Your task to perform on an android device: Open Yahoo.com Image 0: 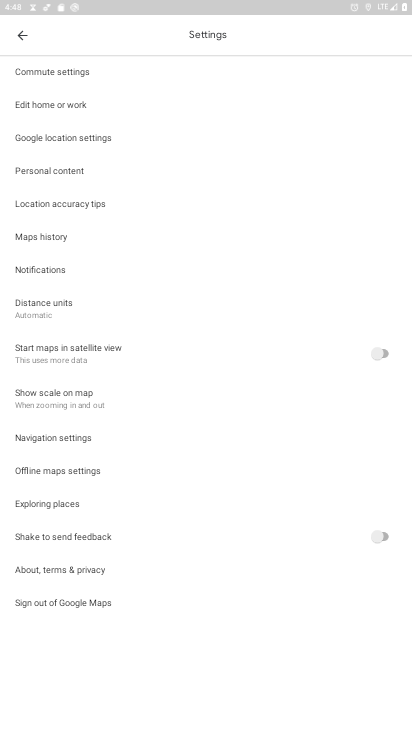
Step 0: press home button
Your task to perform on an android device: Open Yahoo.com Image 1: 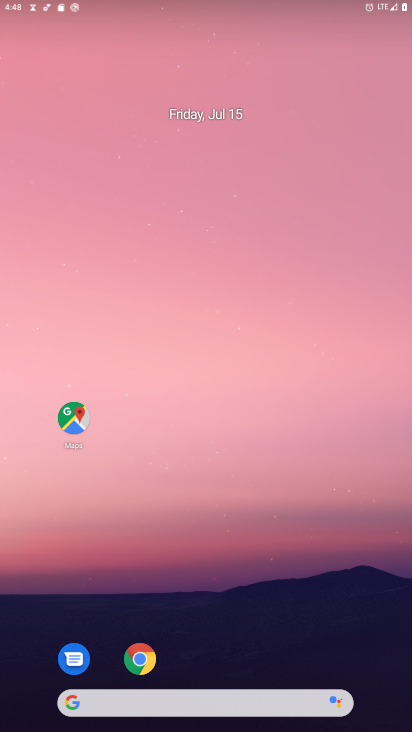
Step 1: drag from (276, 657) to (275, 222)
Your task to perform on an android device: Open Yahoo.com Image 2: 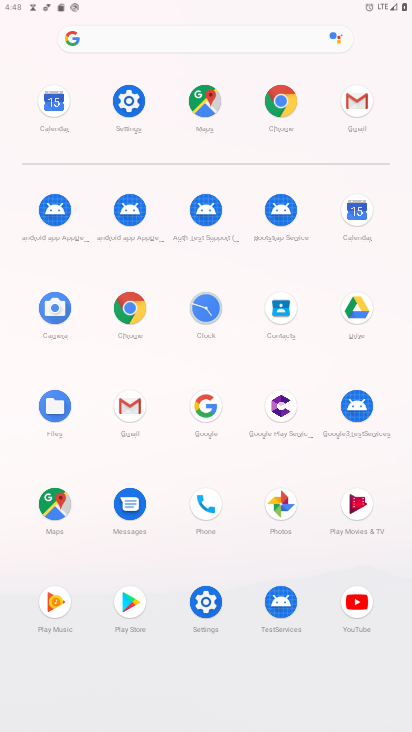
Step 2: click (139, 313)
Your task to perform on an android device: Open Yahoo.com Image 3: 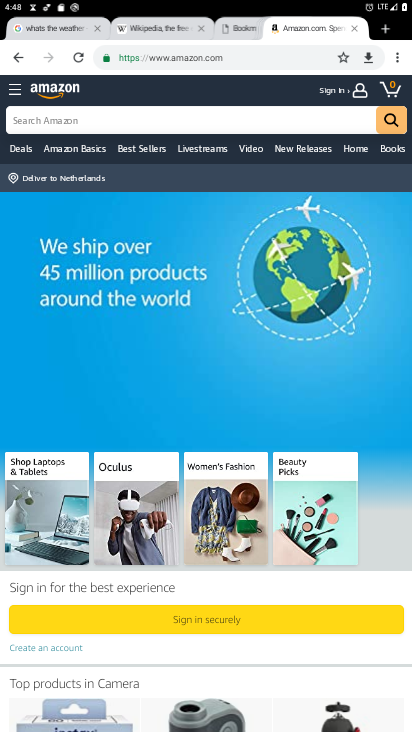
Step 3: drag from (396, 55) to (317, 89)
Your task to perform on an android device: Open Yahoo.com Image 4: 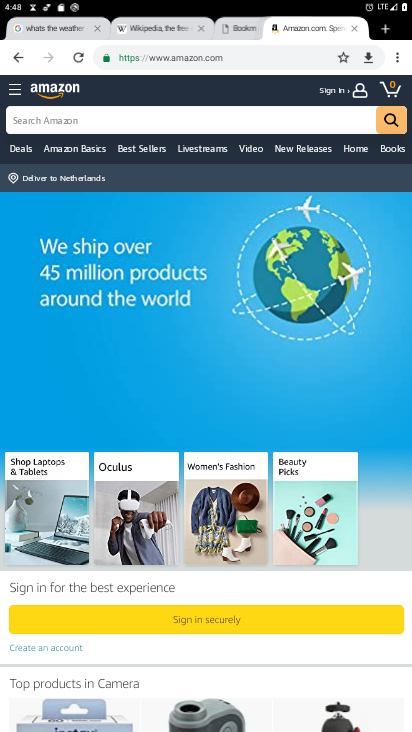
Step 4: click (304, 90)
Your task to perform on an android device: Open Yahoo.com Image 5: 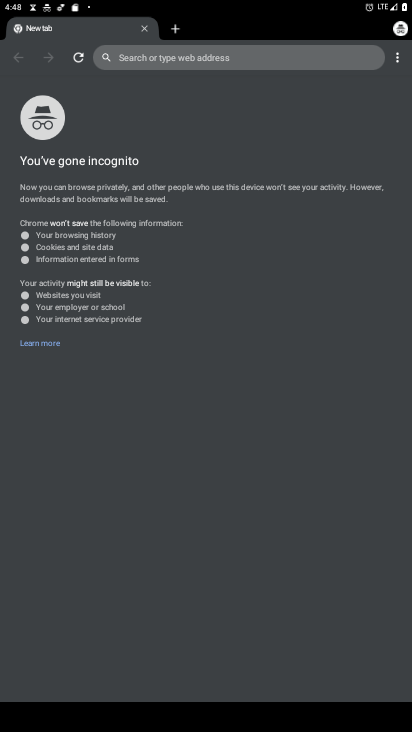
Step 5: task complete